Your task to perform on an android device: When is my next appointment? Image 0: 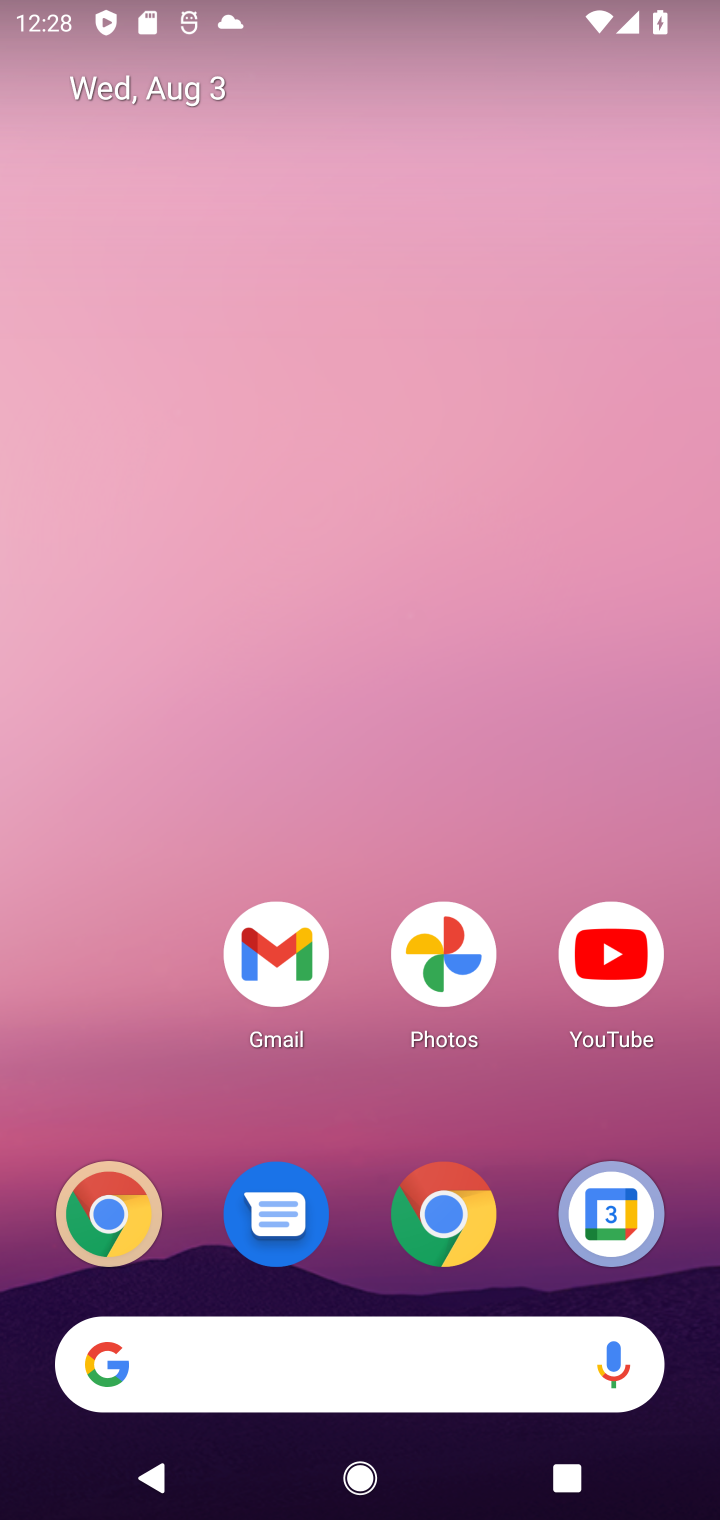
Step 0: click (627, 1182)
Your task to perform on an android device: When is my next appointment? Image 1: 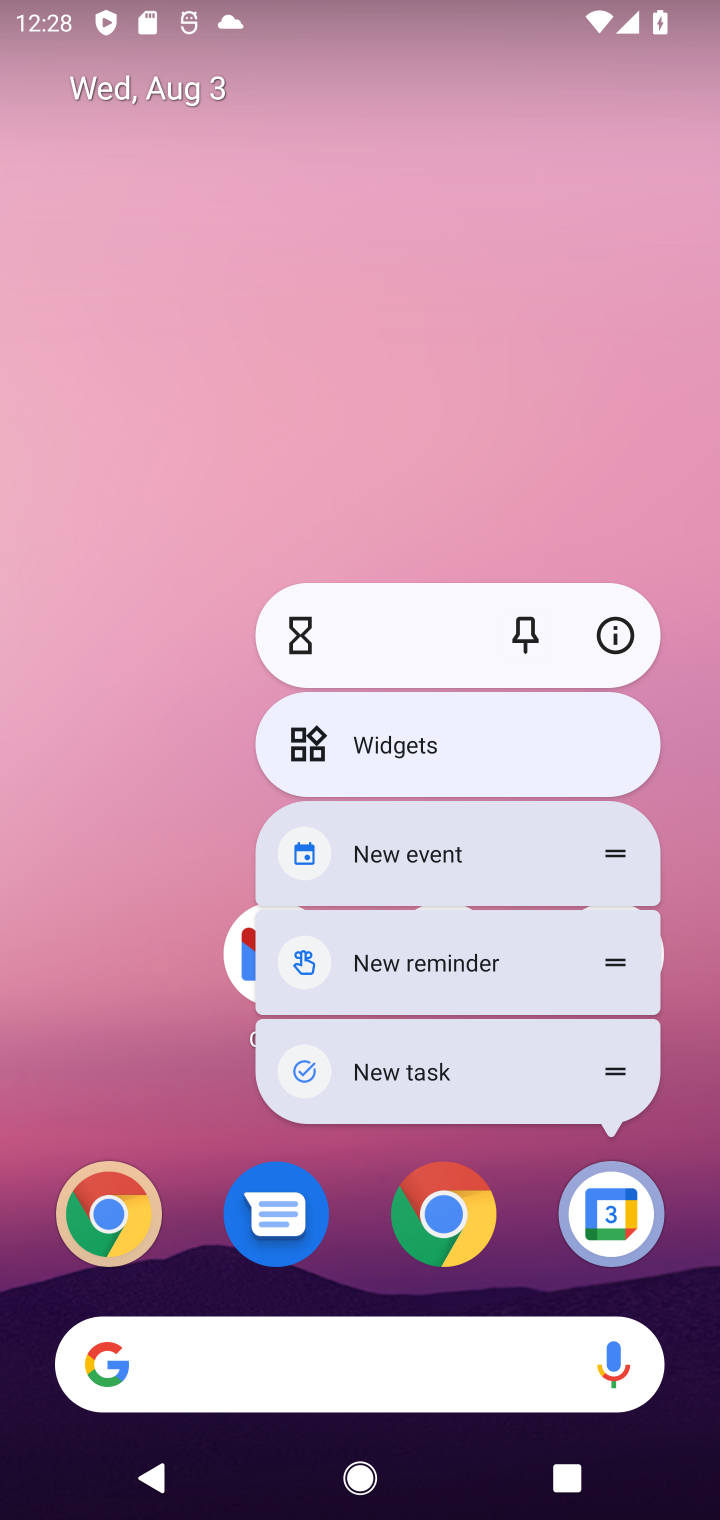
Step 1: click (627, 1182)
Your task to perform on an android device: When is my next appointment? Image 2: 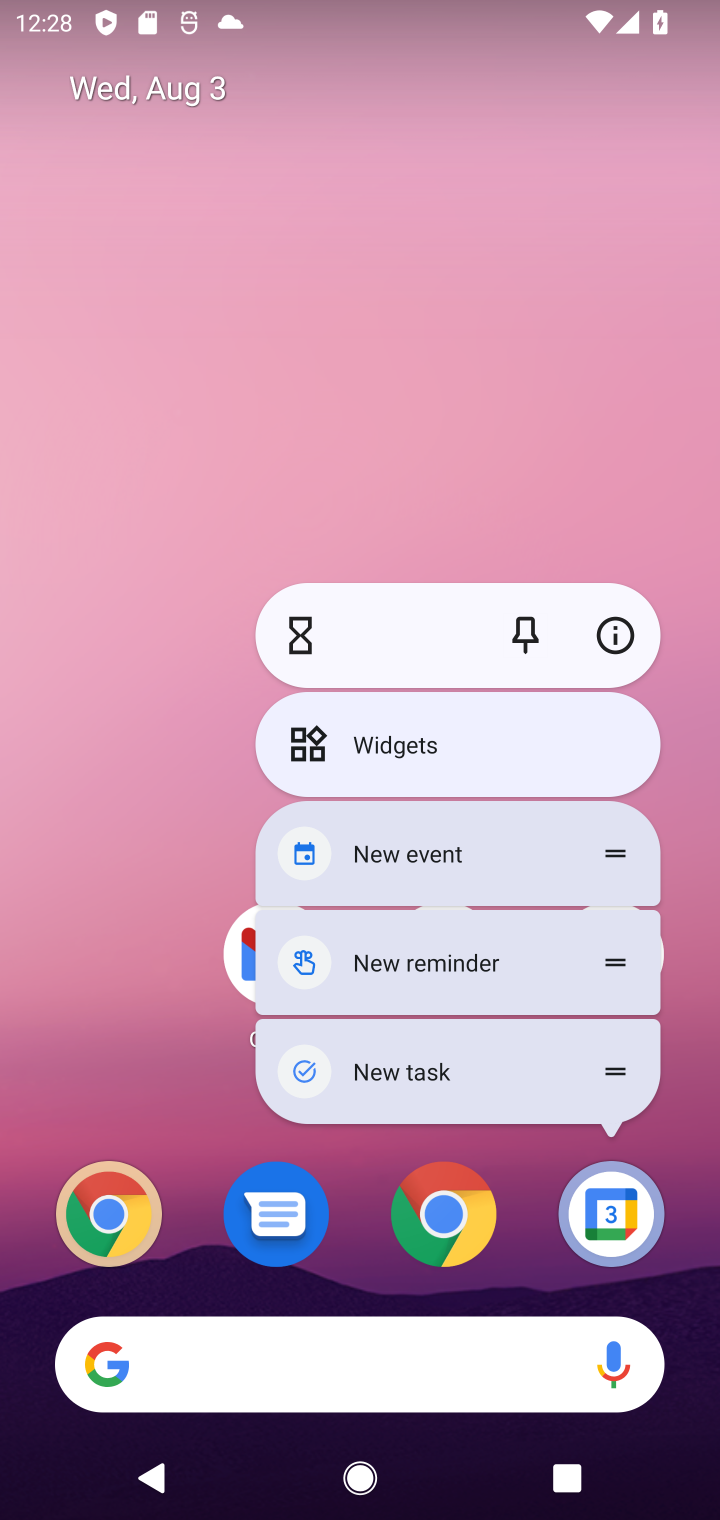
Step 2: click (627, 1182)
Your task to perform on an android device: When is my next appointment? Image 3: 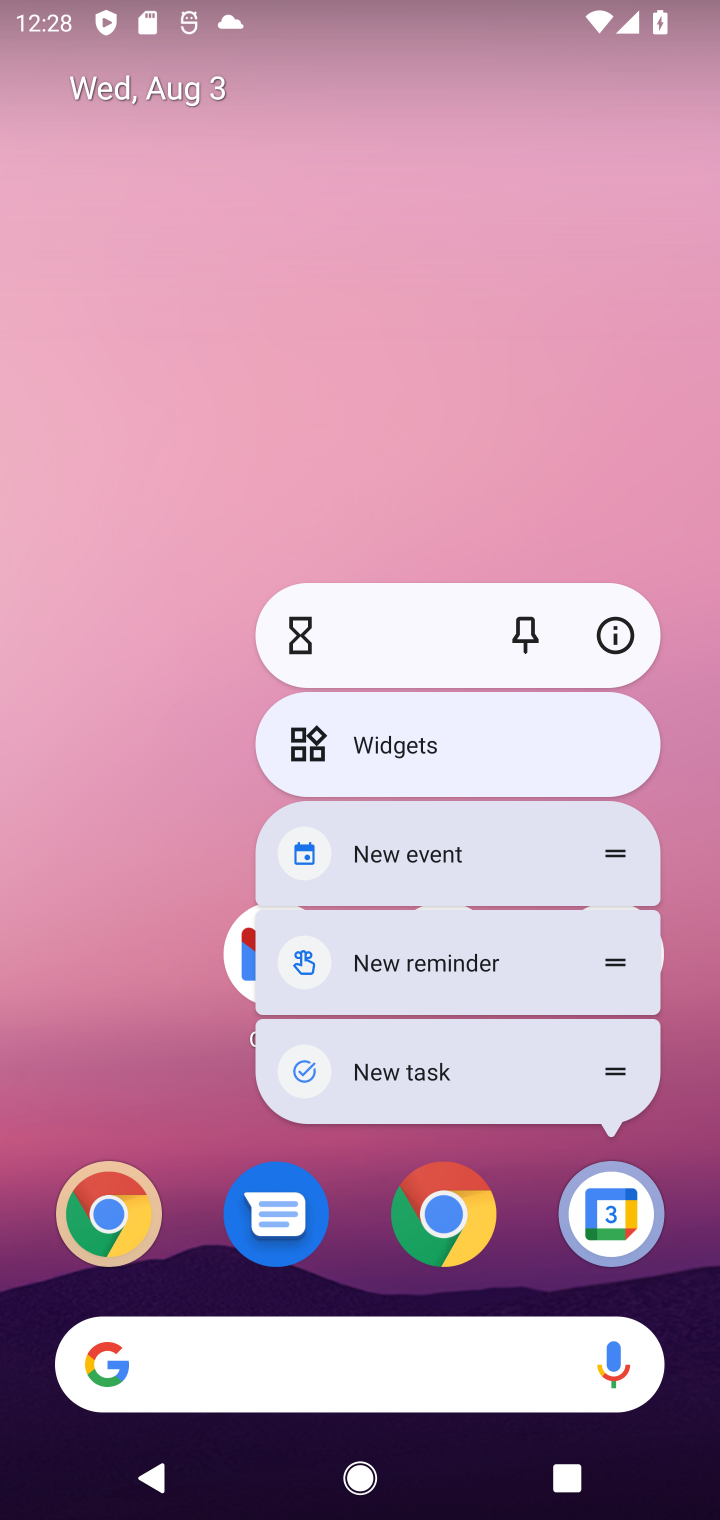
Step 3: click (608, 1210)
Your task to perform on an android device: When is my next appointment? Image 4: 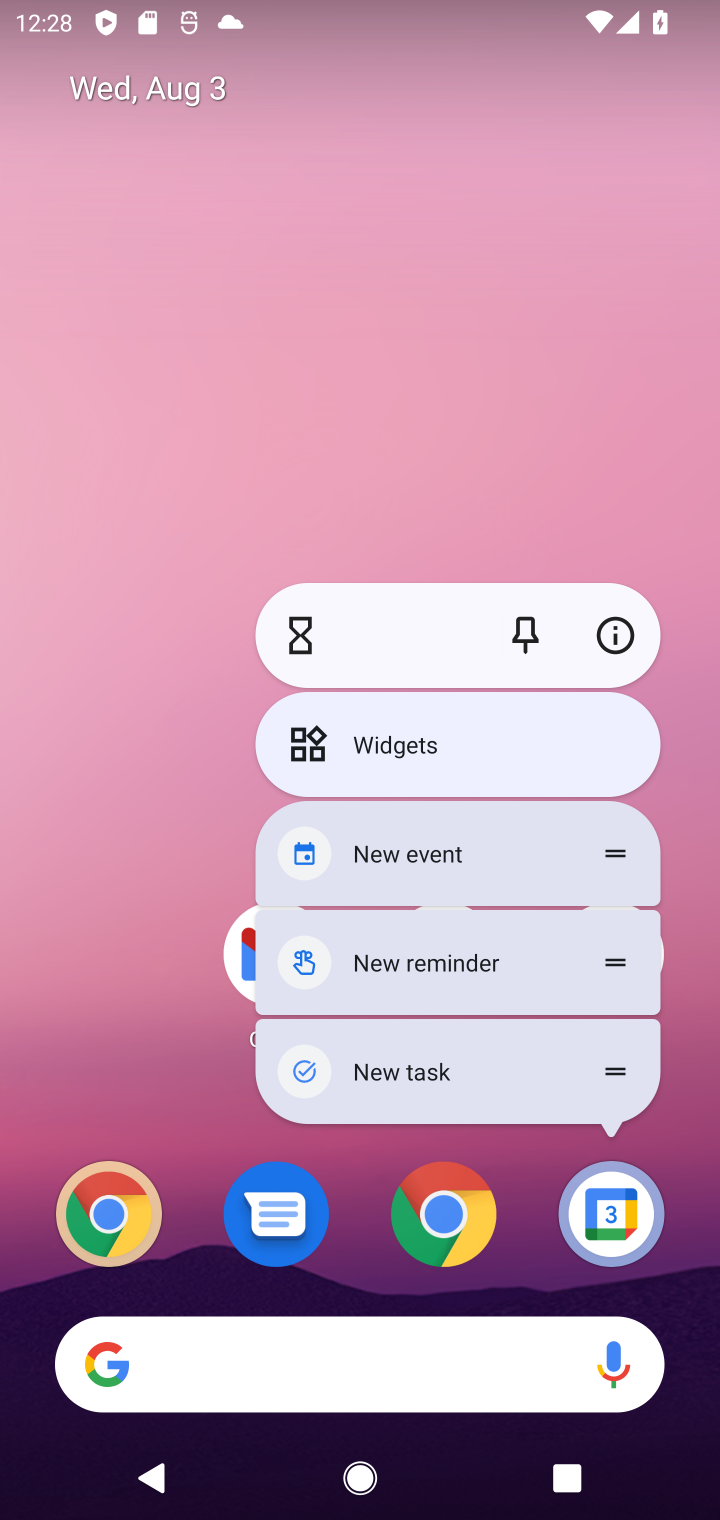
Step 4: click (600, 1262)
Your task to perform on an android device: When is my next appointment? Image 5: 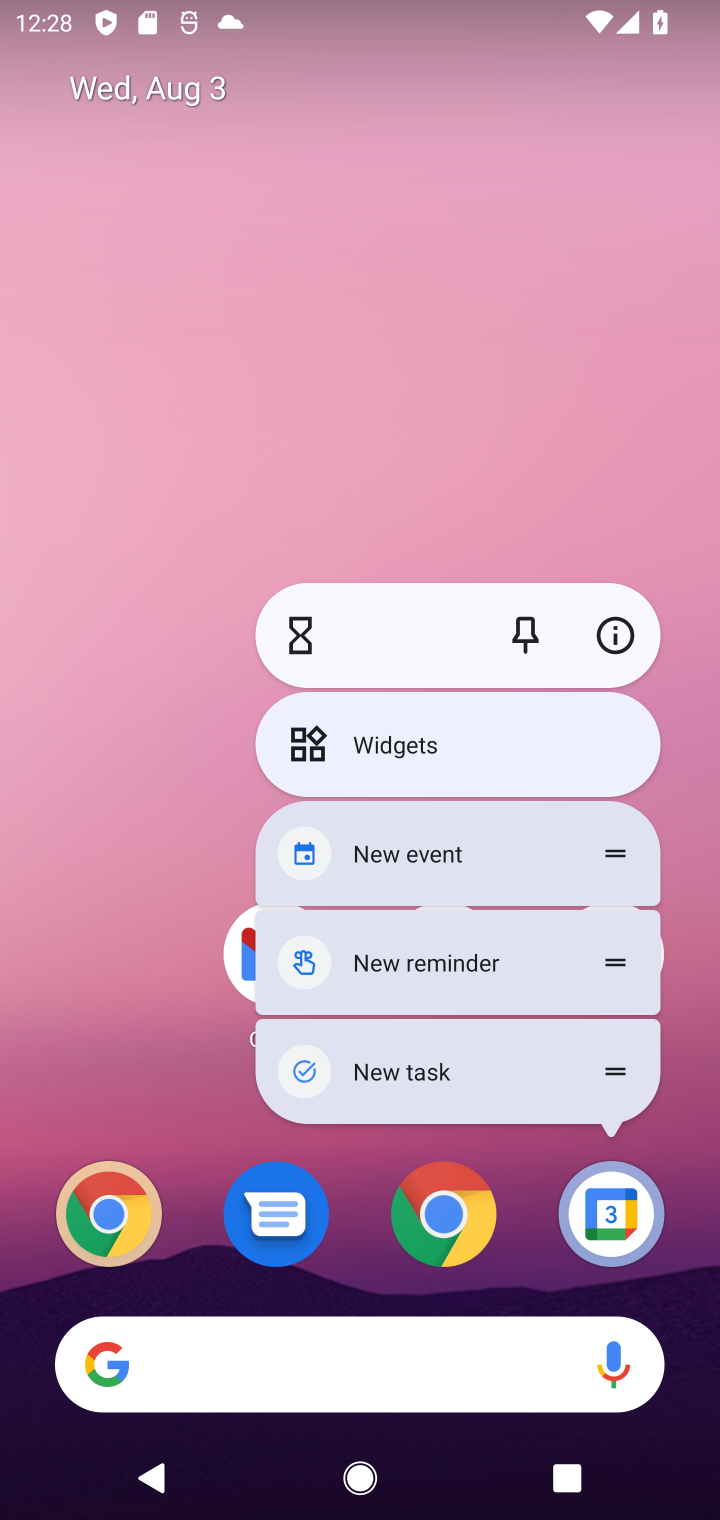
Step 5: click (626, 1243)
Your task to perform on an android device: When is my next appointment? Image 6: 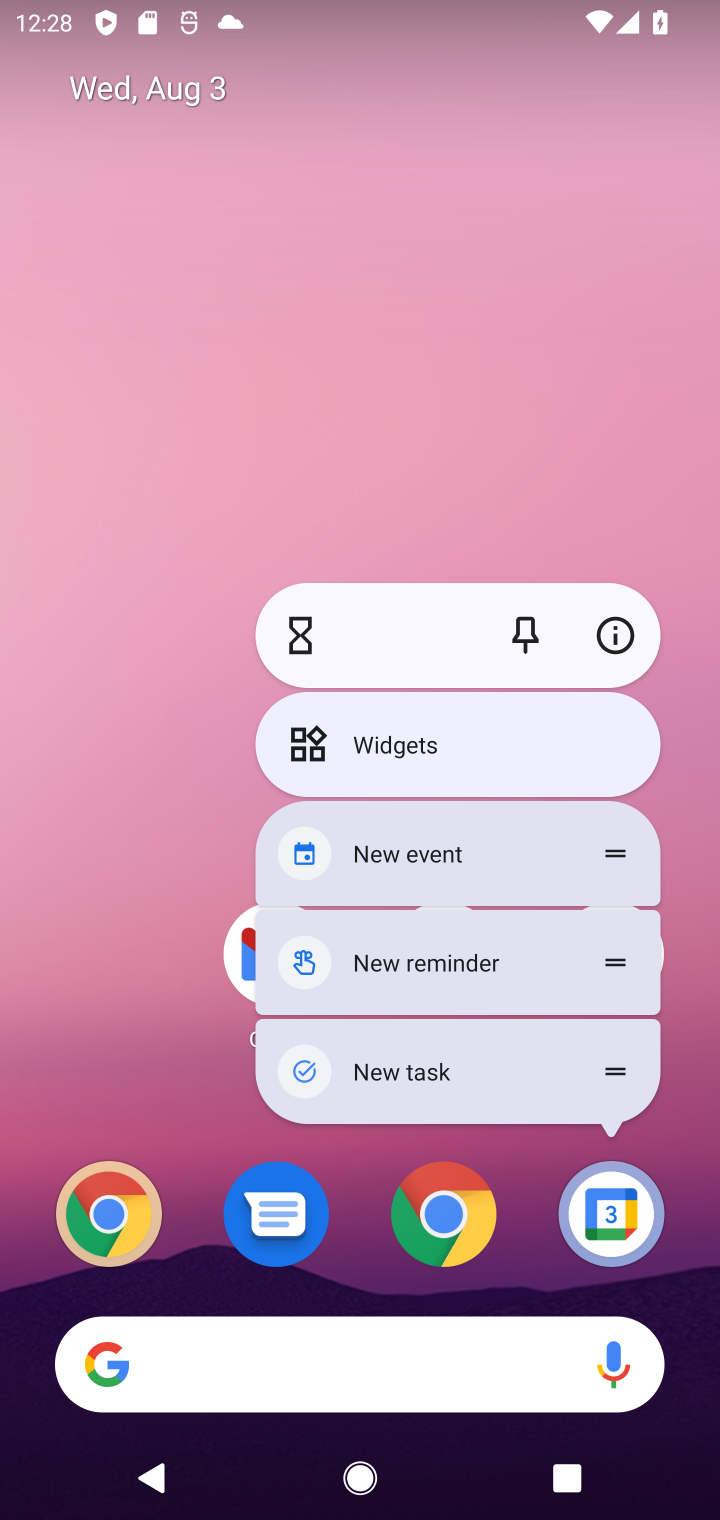
Step 6: click (573, 1215)
Your task to perform on an android device: When is my next appointment? Image 7: 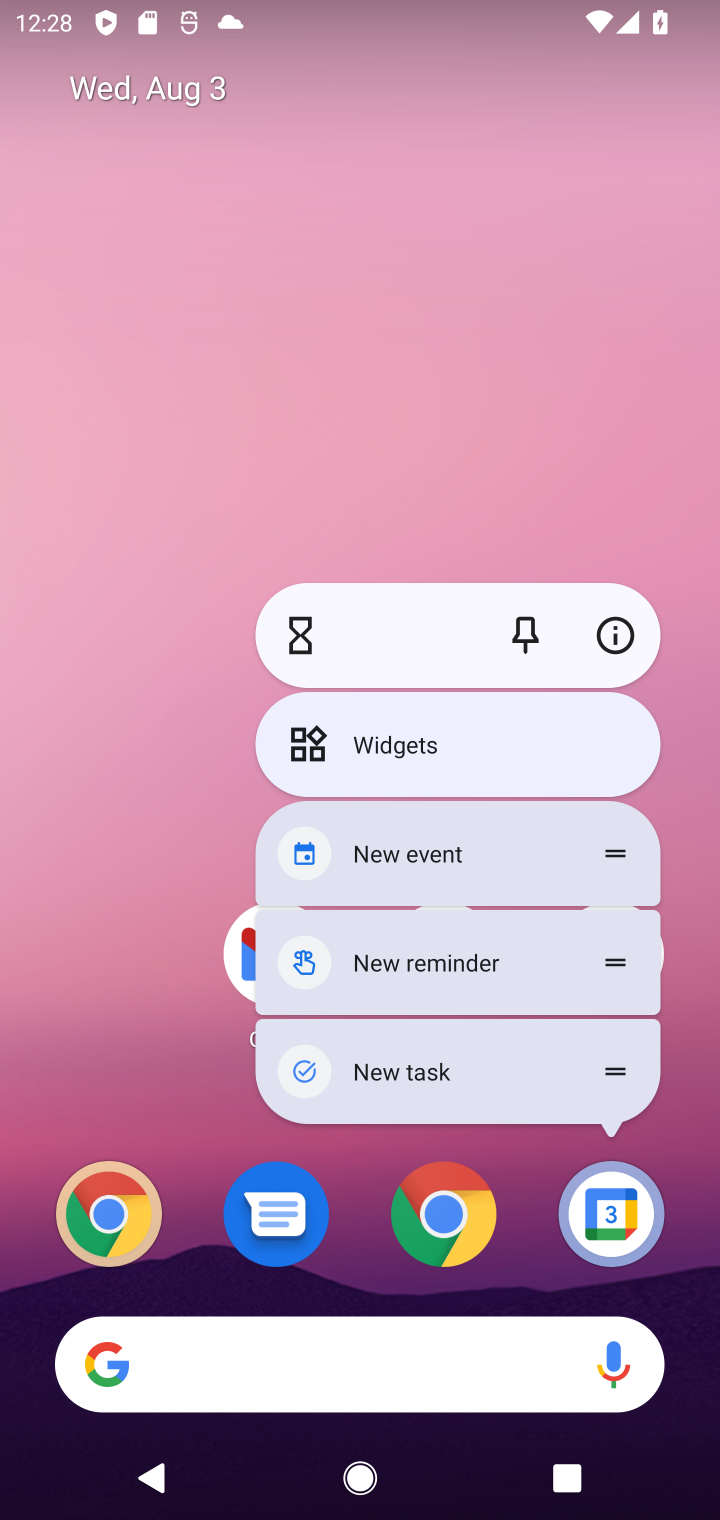
Step 7: click (642, 1210)
Your task to perform on an android device: When is my next appointment? Image 8: 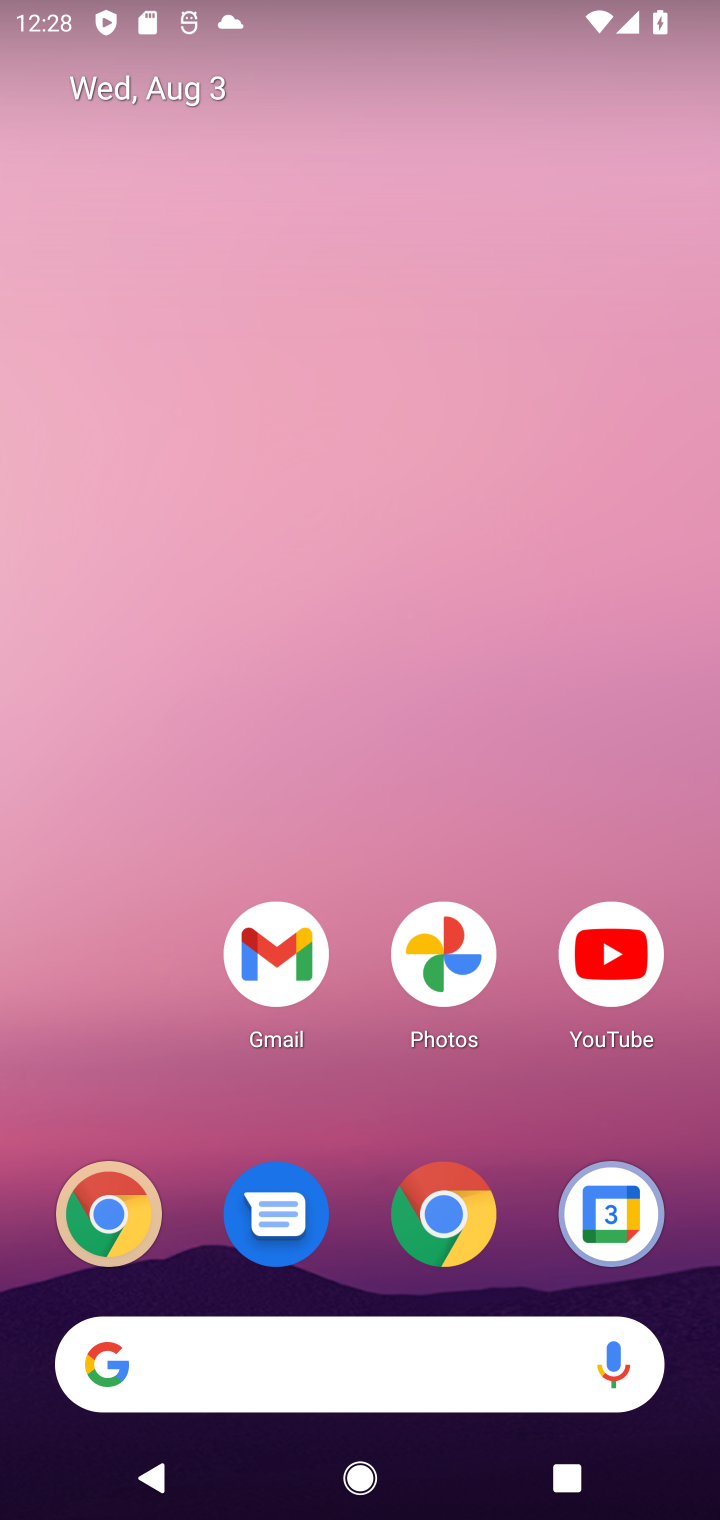
Step 8: click (642, 1210)
Your task to perform on an android device: When is my next appointment? Image 9: 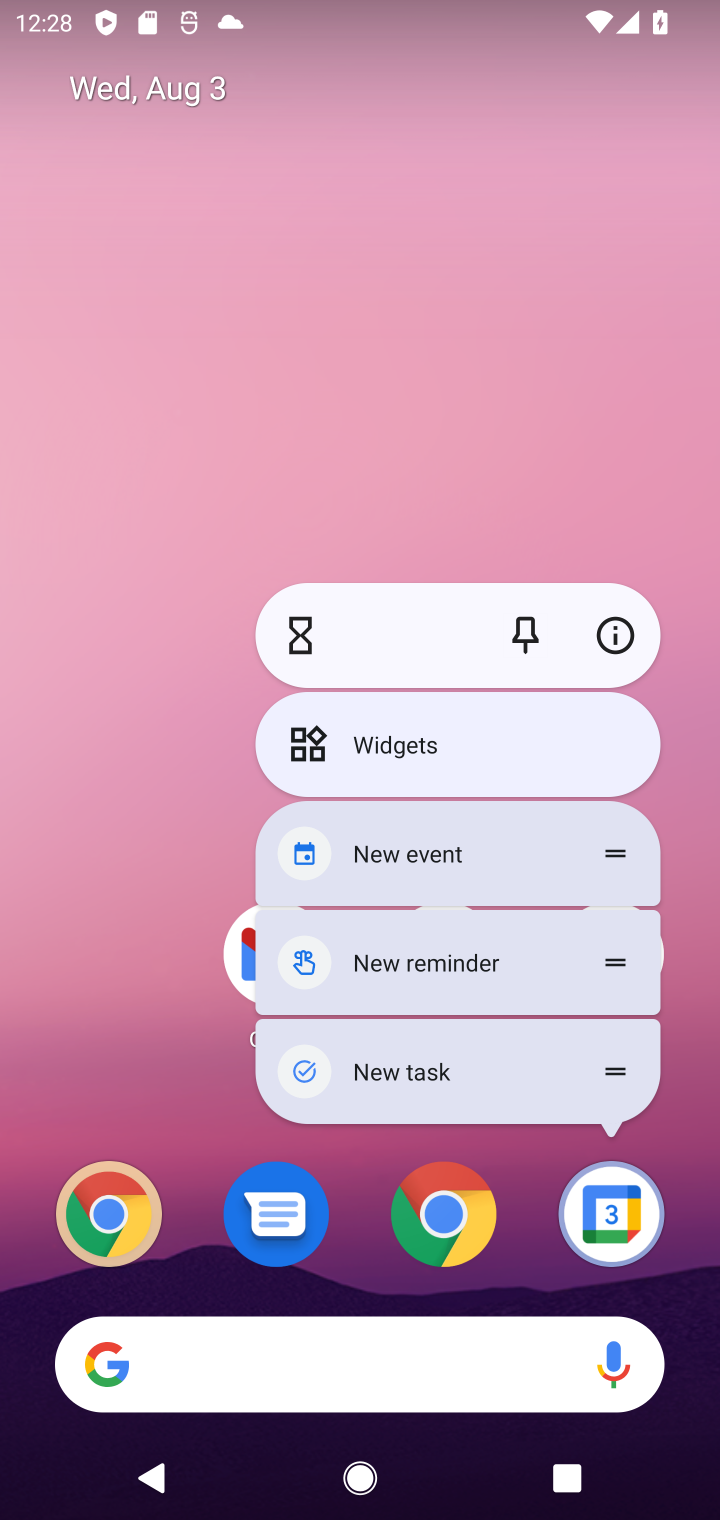
Step 9: click (642, 1210)
Your task to perform on an android device: When is my next appointment? Image 10: 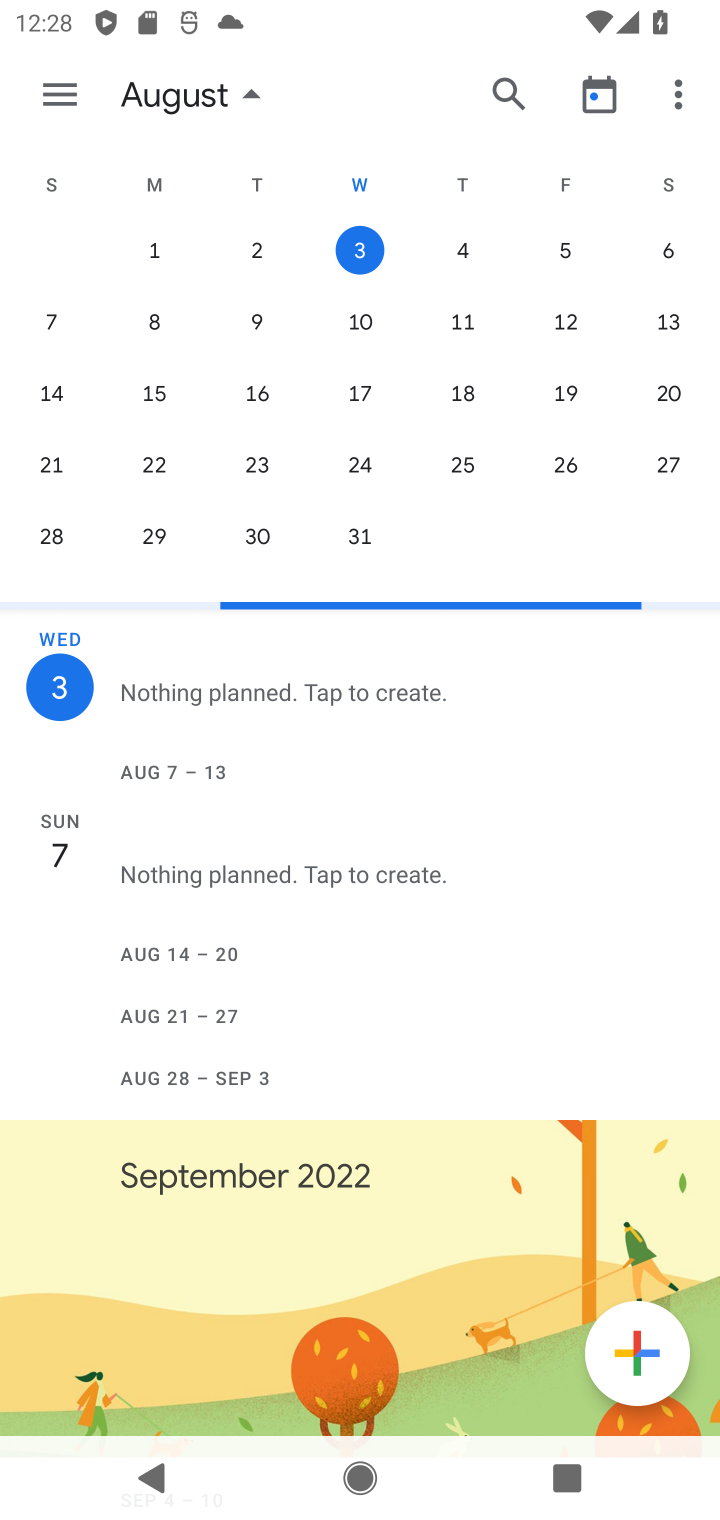
Step 10: click (600, 1218)
Your task to perform on an android device: When is my next appointment? Image 11: 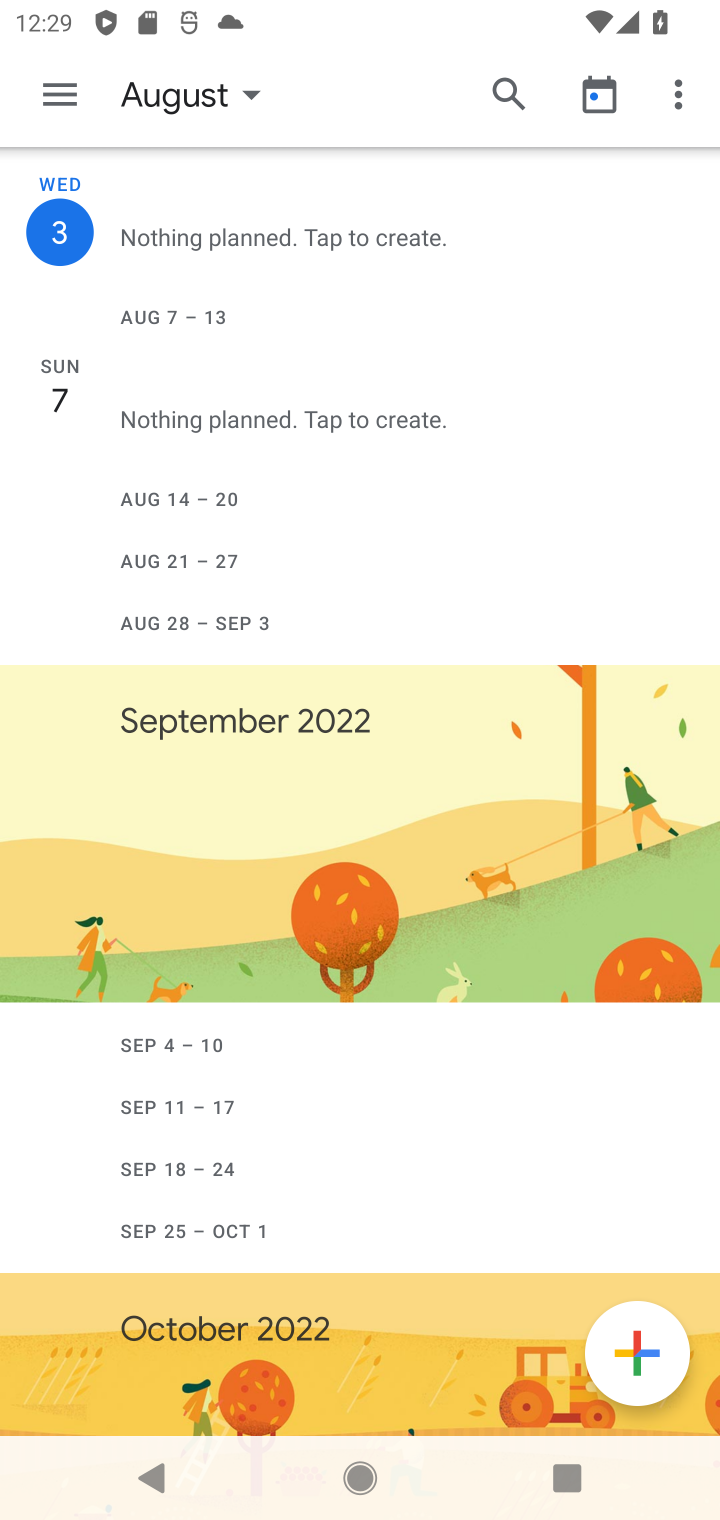
Step 11: task complete